Your task to perform on an android device: Go to CNN.com Image 0: 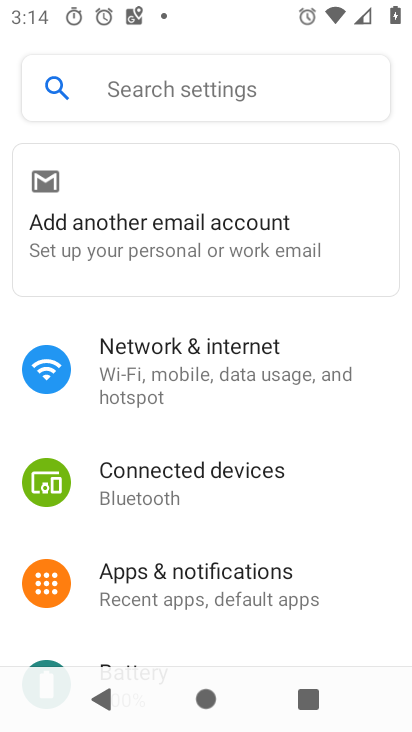
Step 0: press home button
Your task to perform on an android device: Go to CNN.com Image 1: 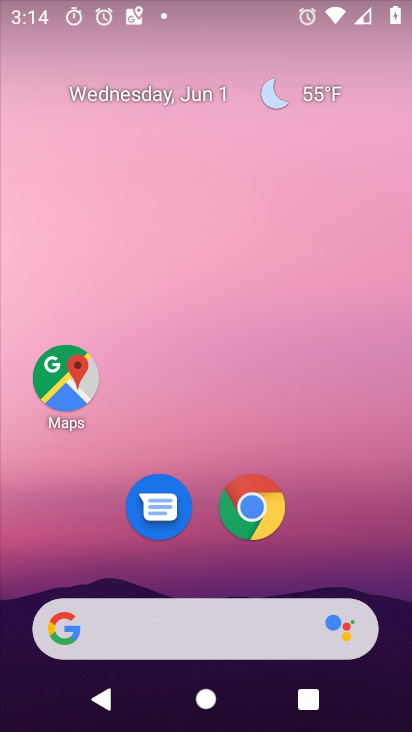
Step 1: click (259, 509)
Your task to perform on an android device: Go to CNN.com Image 2: 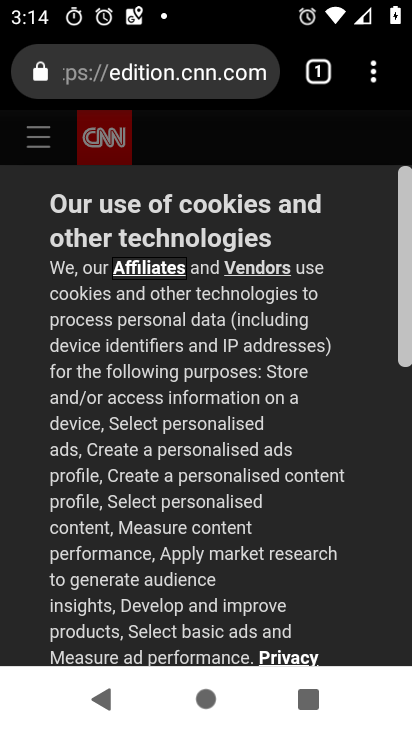
Step 2: task complete